Your task to perform on an android device: turn on improve location accuracy Image 0: 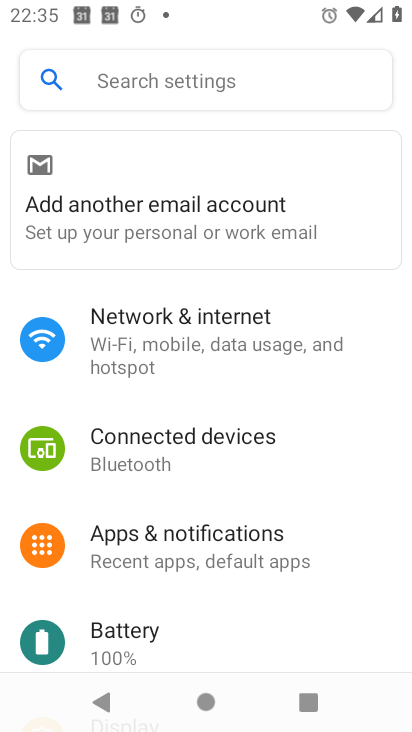
Step 0: drag from (243, 542) to (249, 30)
Your task to perform on an android device: turn on improve location accuracy Image 1: 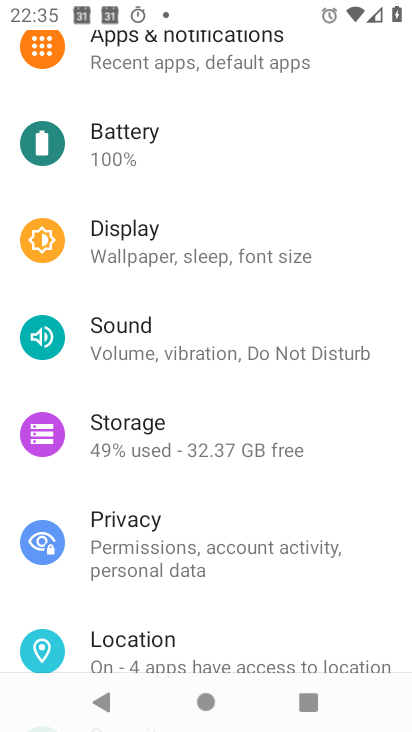
Step 1: click (170, 646)
Your task to perform on an android device: turn on improve location accuracy Image 2: 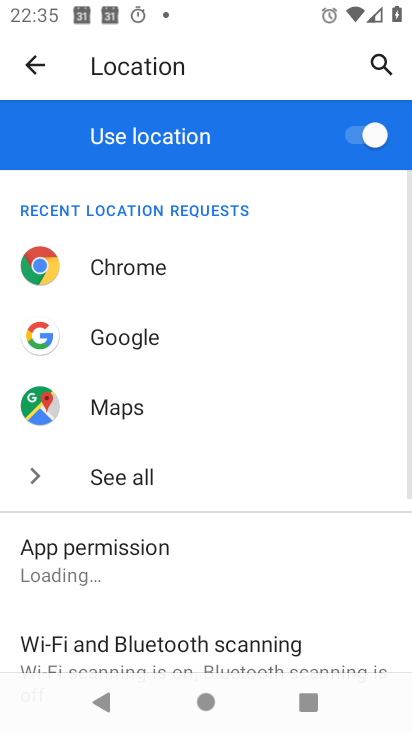
Step 2: drag from (209, 629) to (225, 159)
Your task to perform on an android device: turn on improve location accuracy Image 3: 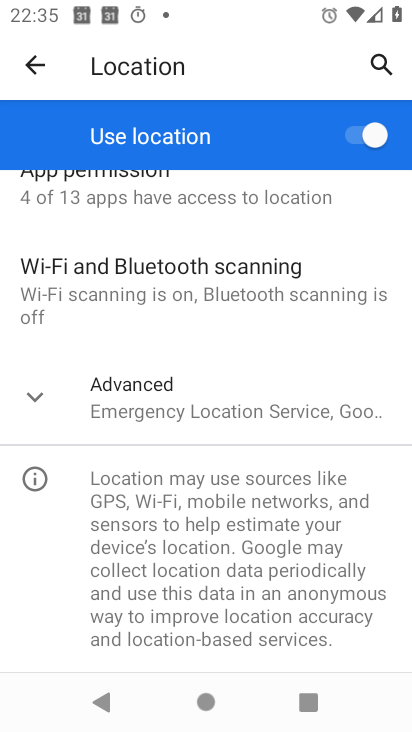
Step 3: click (171, 394)
Your task to perform on an android device: turn on improve location accuracy Image 4: 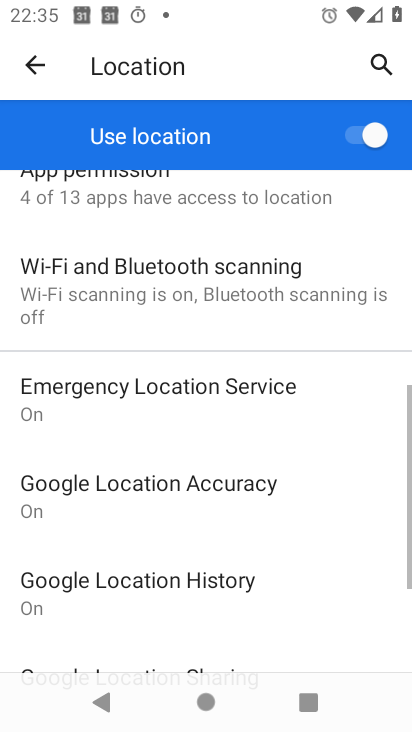
Step 4: task complete